Your task to perform on an android device: Open CNN.com Image 0: 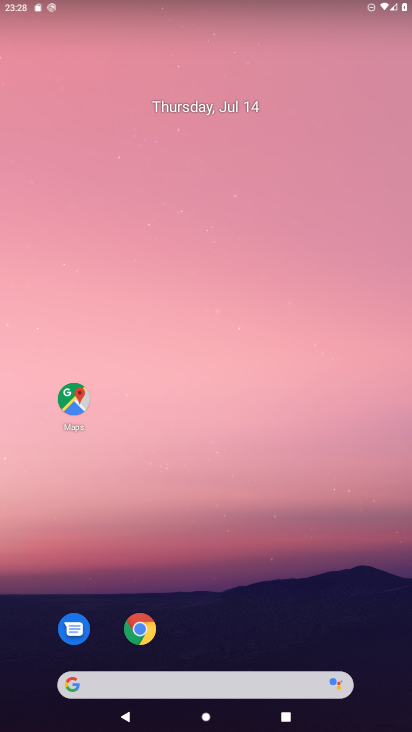
Step 0: click (180, 685)
Your task to perform on an android device: Open CNN.com Image 1: 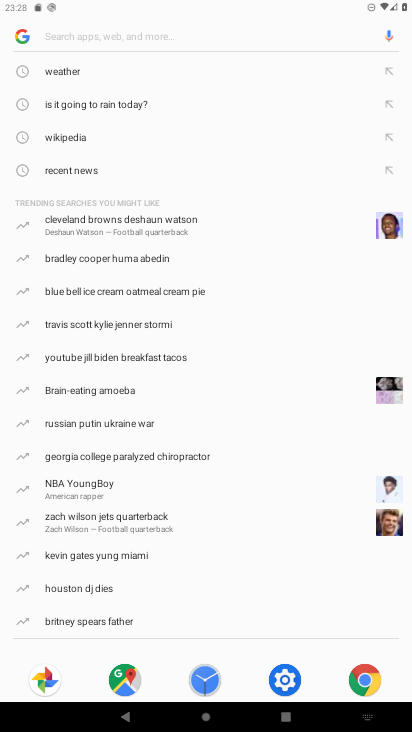
Step 1: type "cnn.com"
Your task to perform on an android device: Open CNN.com Image 2: 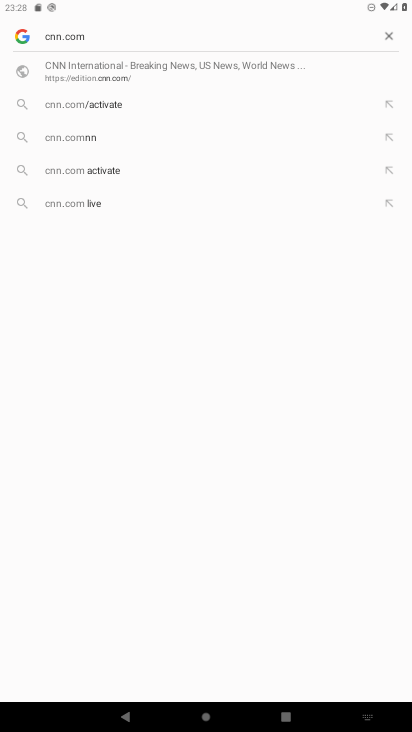
Step 2: click (222, 73)
Your task to perform on an android device: Open CNN.com Image 3: 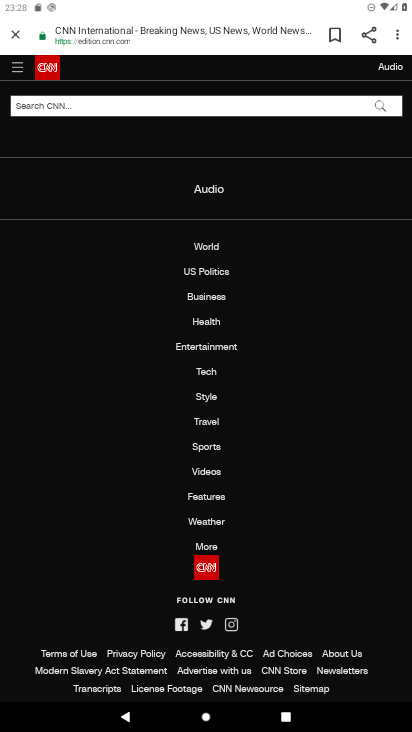
Step 3: task complete